Your task to perform on an android device: toggle show notifications on the lock screen Image 0: 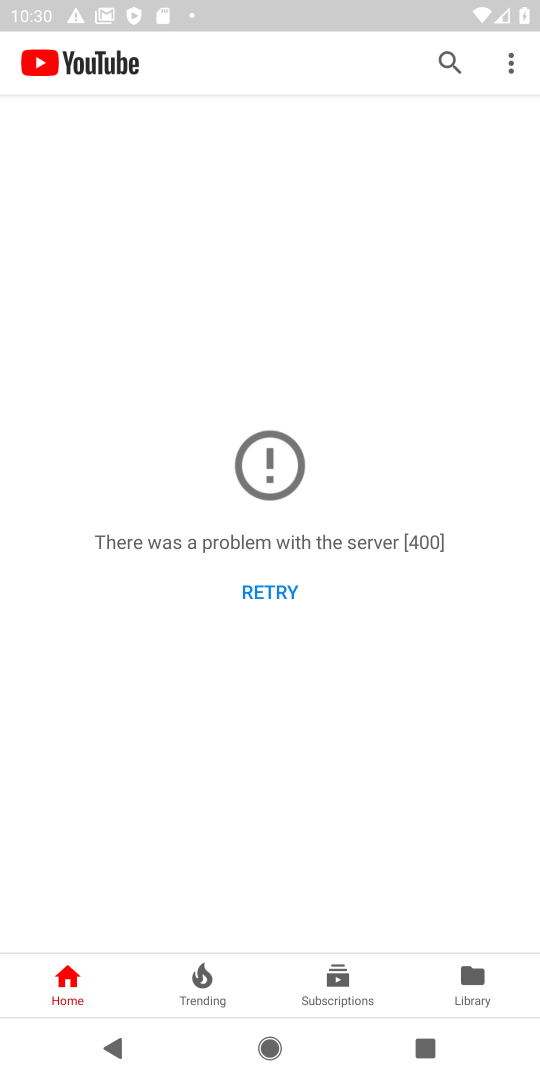
Step 0: press home button
Your task to perform on an android device: toggle show notifications on the lock screen Image 1: 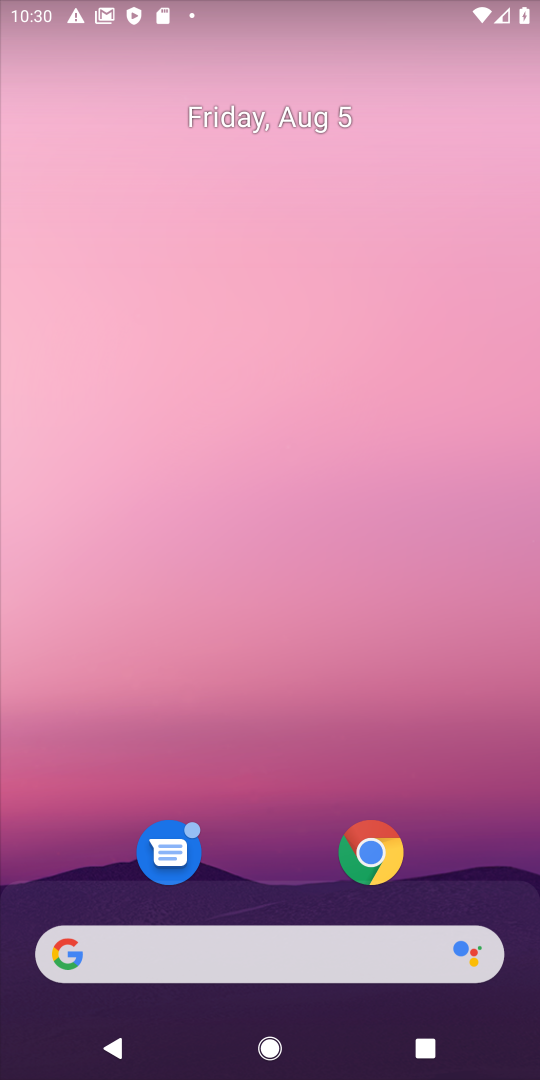
Step 1: drag from (274, 954) to (272, 470)
Your task to perform on an android device: toggle show notifications on the lock screen Image 2: 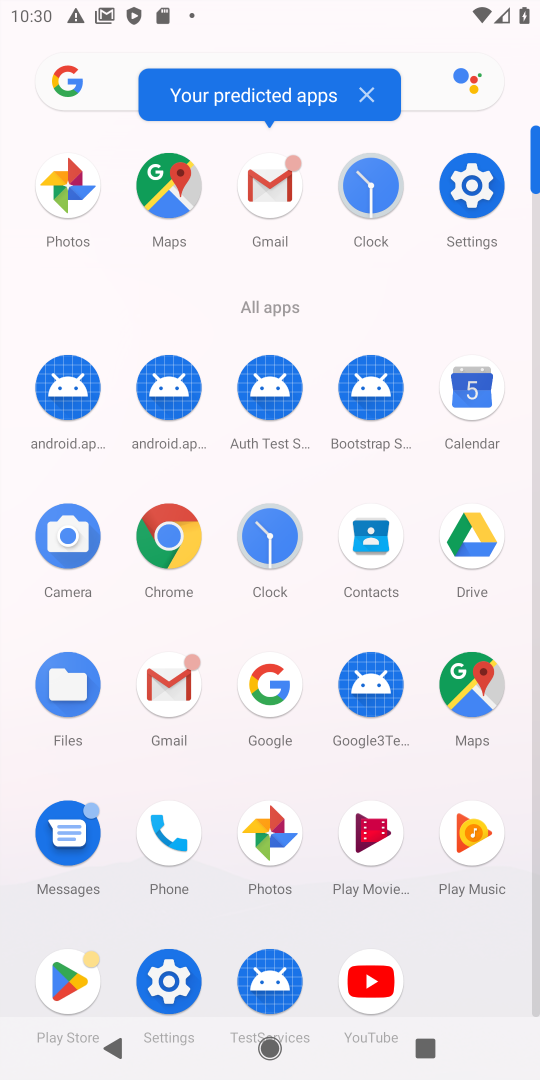
Step 2: click (466, 202)
Your task to perform on an android device: toggle show notifications on the lock screen Image 3: 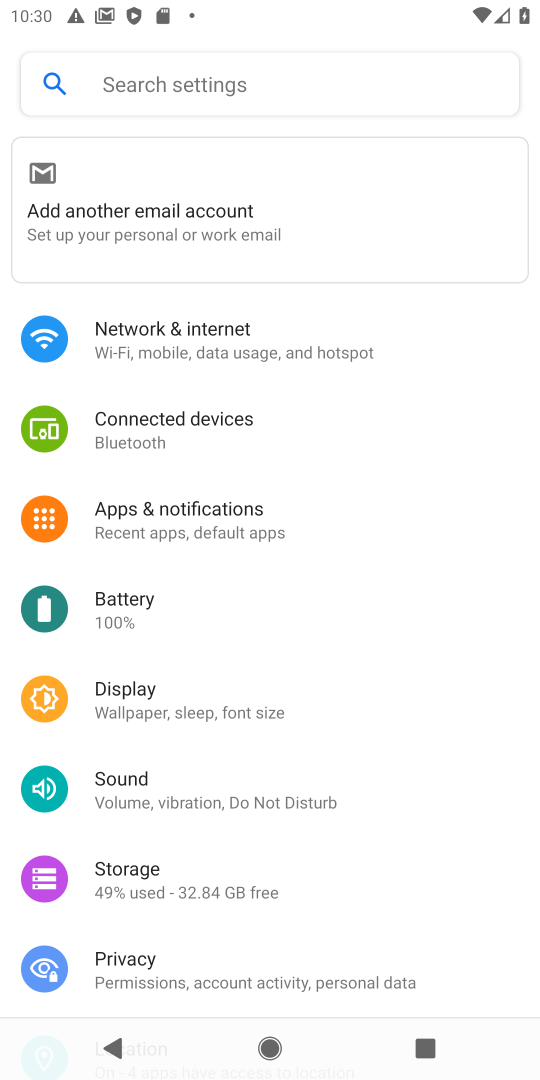
Step 3: click (158, 967)
Your task to perform on an android device: toggle show notifications on the lock screen Image 4: 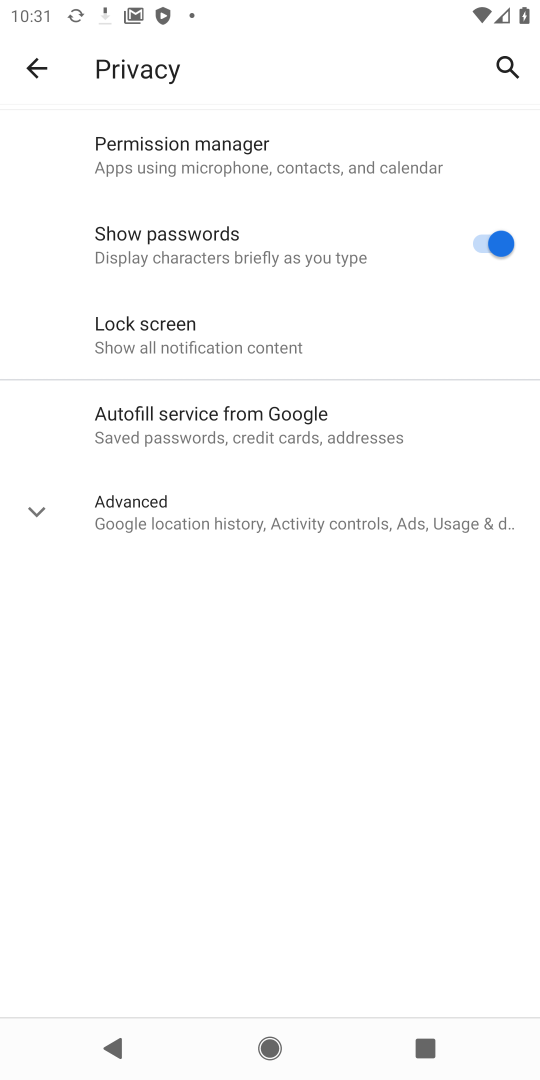
Step 4: click (186, 330)
Your task to perform on an android device: toggle show notifications on the lock screen Image 5: 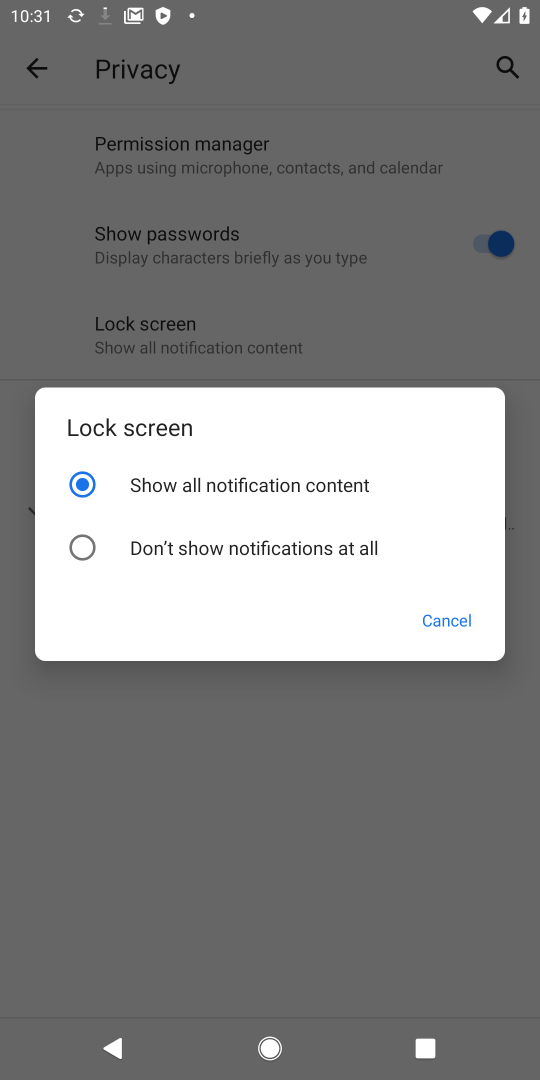
Step 5: click (198, 555)
Your task to perform on an android device: toggle show notifications on the lock screen Image 6: 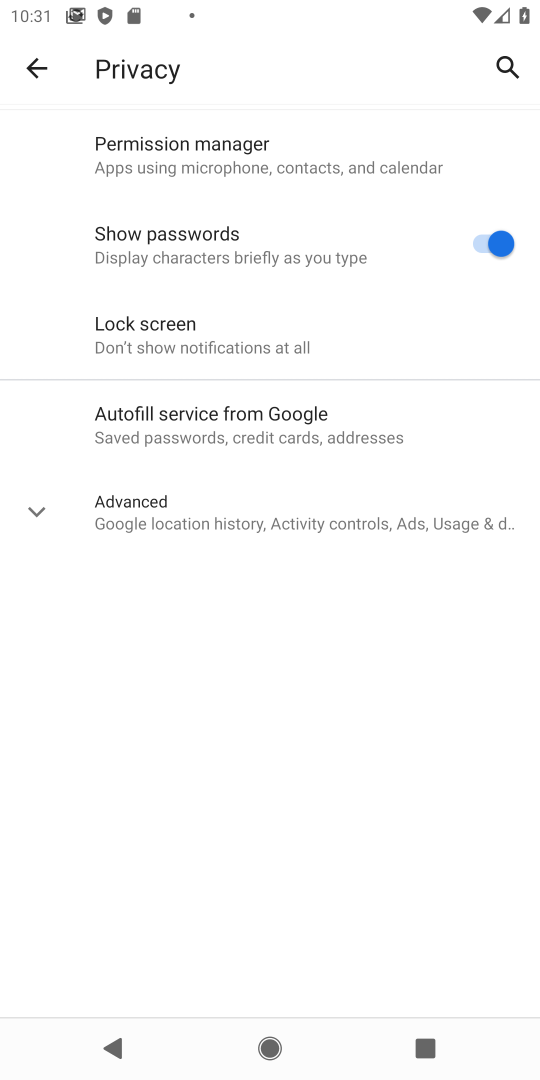
Step 6: task complete